Your task to perform on an android device: Open sound settings Image 0: 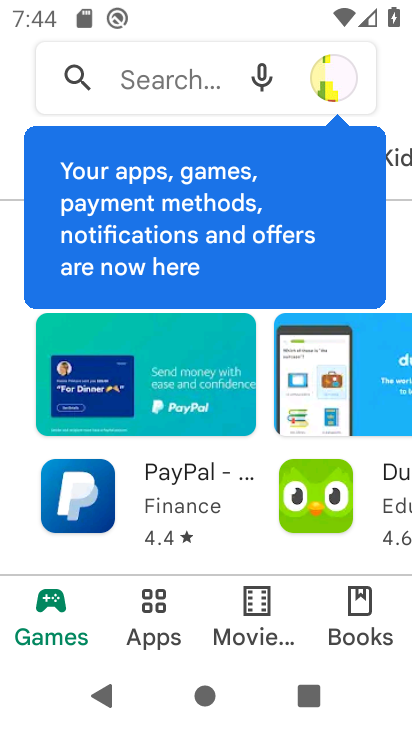
Step 0: press home button
Your task to perform on an android device: Open sound settings Image 1: 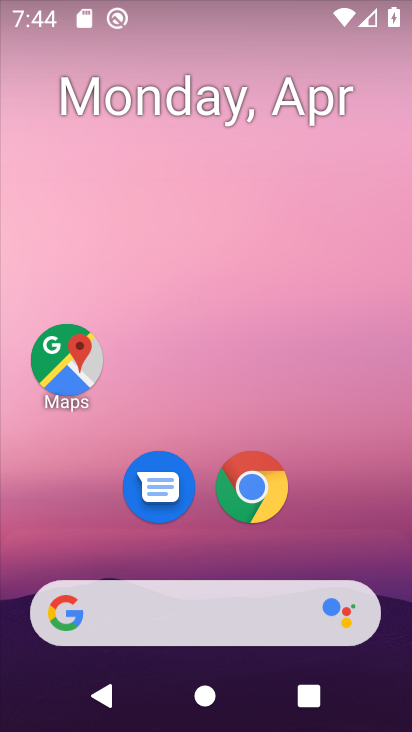
Step 1: drag from (195, 565) to (189, 53)
Your task to perform on an android device: Open sound settings Image 2: 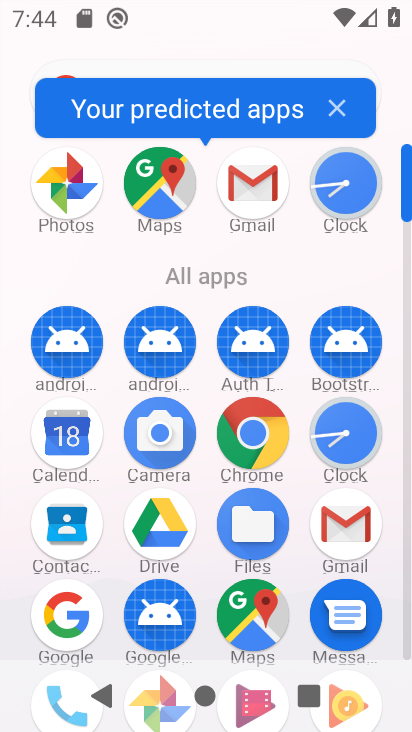
Step 2: drag from (203, 444) to (214, 71)
Your task to perform on an android device: Open sound settings Image 3: 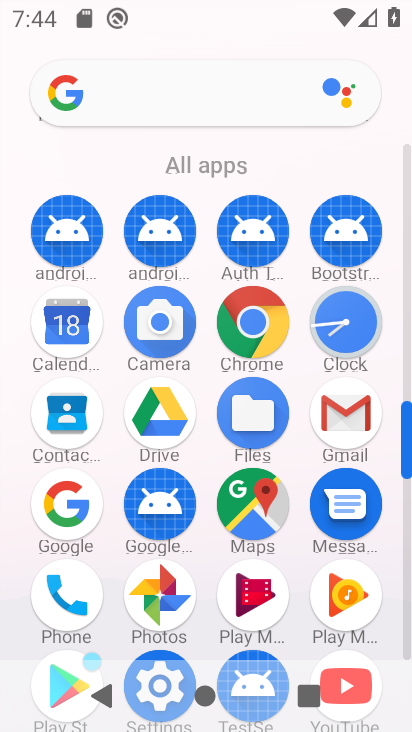
Step 3: drag from (204, 447) to (198, 113)
Your task to perform on an android device: Open sound settings Image 4: 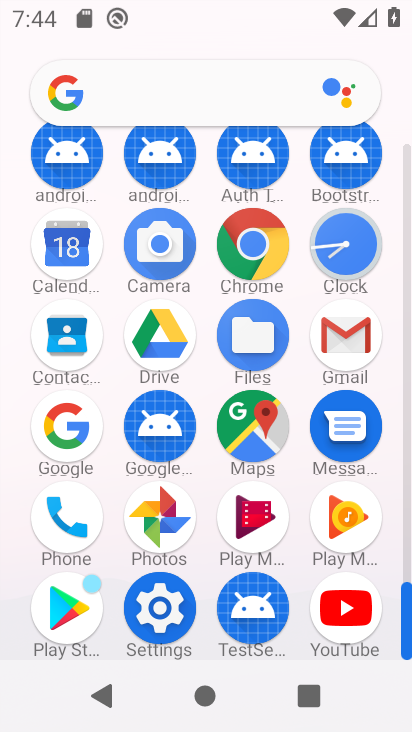
Step 4: click (154, 601)
Your task to perform on an android device: Open sound settings Image 5: 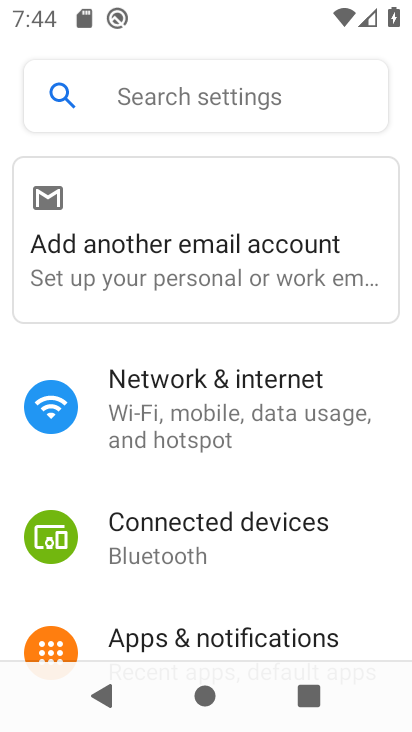
Step 5: drag from (200, 485) to (212, 103)
Your task to perform on an android device: Open sound settings Image 6: 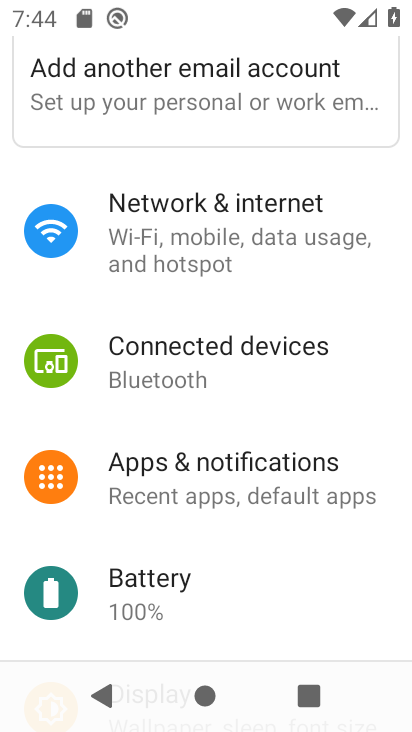
Step 6: drag from (216, 593) to (256, 107)
Your task to perform on an android device: Open sound settings Image 7: 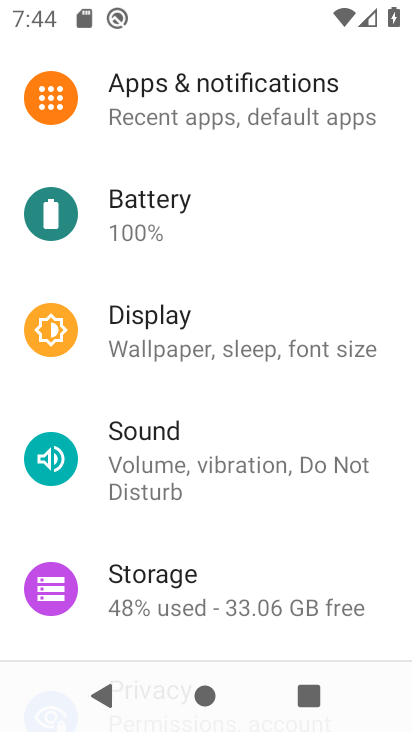
Step 7: click (173, 457)
Your task to perform on an android device: Open sound settings Image 8: 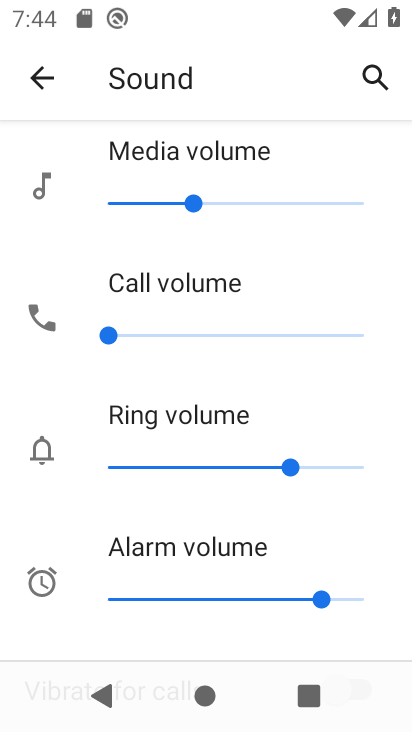
Step 8: drag from (188, 542) to (222, 254)
Your task to perform on an android device: Open sound settings Image 9: 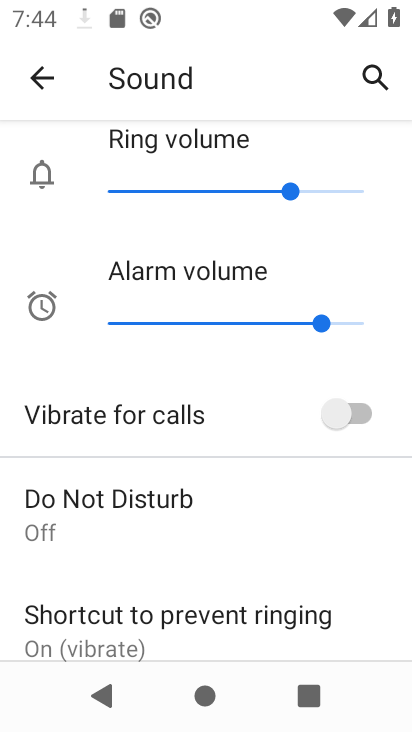
Step 9: drag from (152, 587) to (185, 199)
Your task to perform on an android device: Open sound settings Image 10: 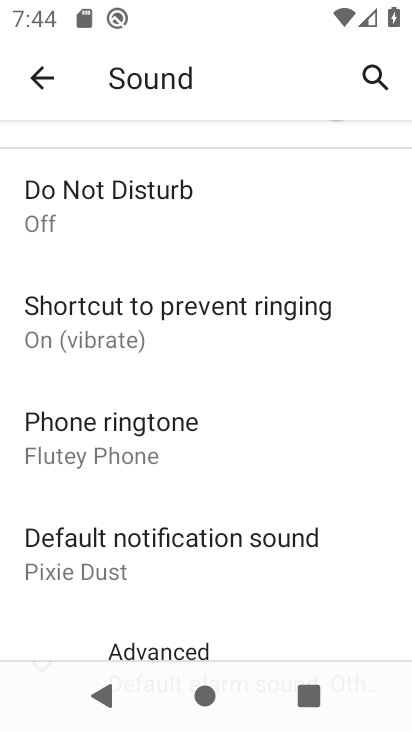
Step 10: drag from (200, 559) to (240, 362)
Your task to perform on an android device: Open sound settings Image 11: 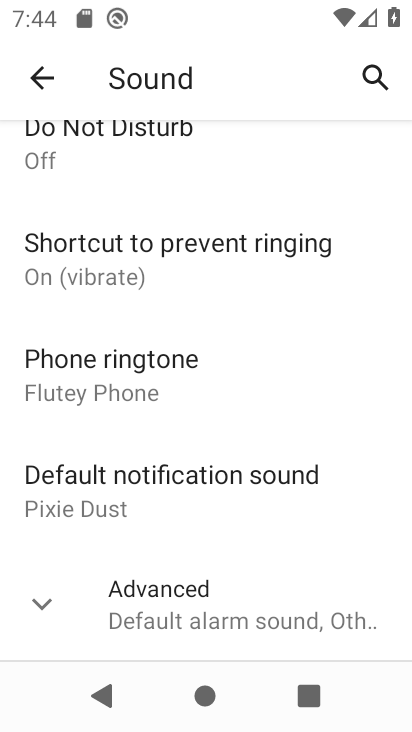
Step 11: click (39, 603)
Your task to perform on an android device: Open sound settings Image 12: 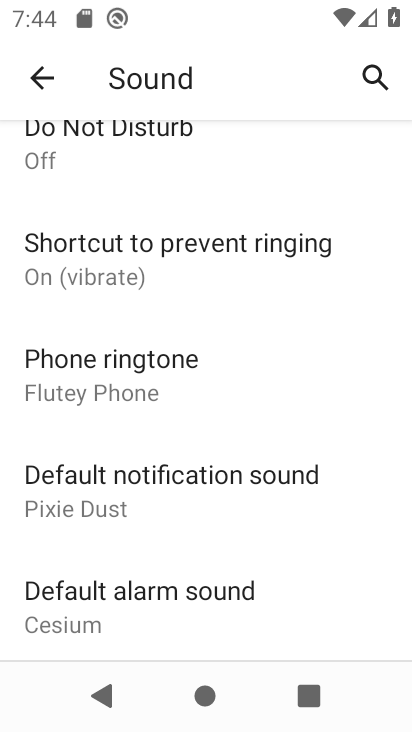
Step 12: task complete